Your task to perform on an android device: open the mobile data screen to see how much data has been used Image 0: 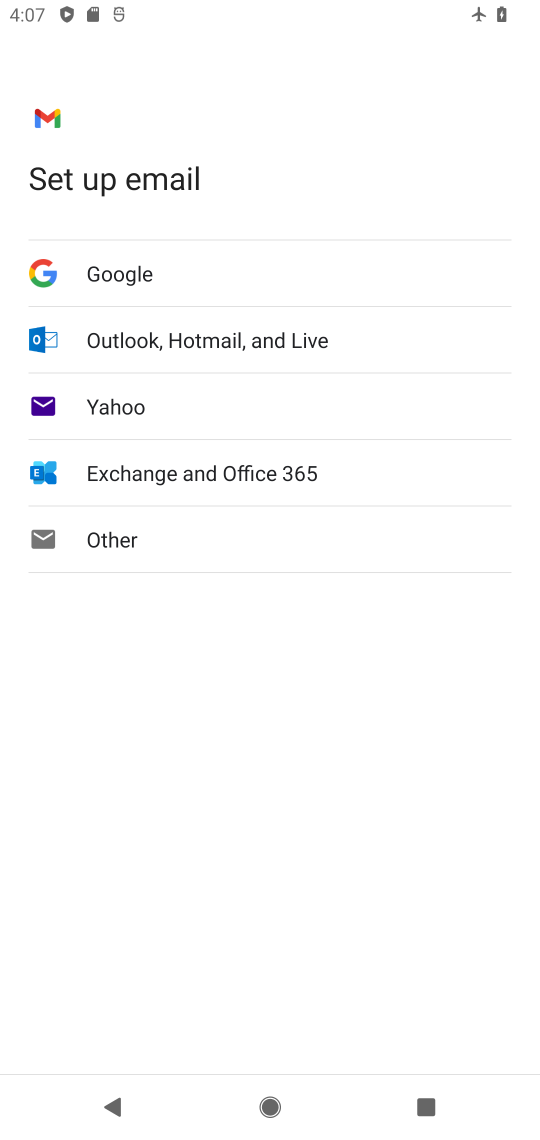
Step 0: press home button
Your task to perform on an android device: open the mobile data screen to see how much data has been used Image 1: 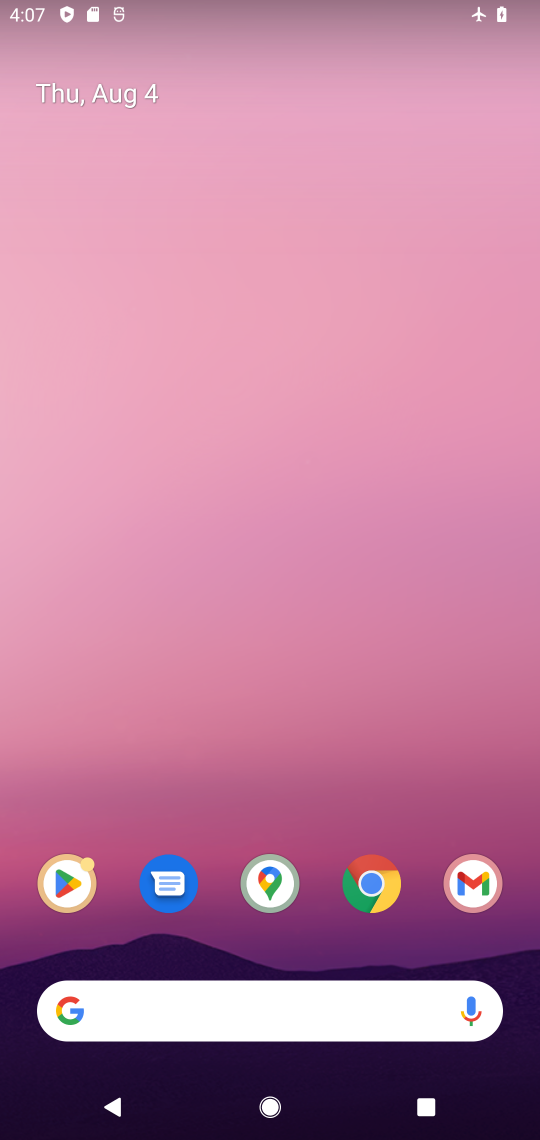
Step 1: drag from (490, 807) to (216, 54)
Your task to perform on an android device: open the mobile data screen to see how much data has been used Image 2: 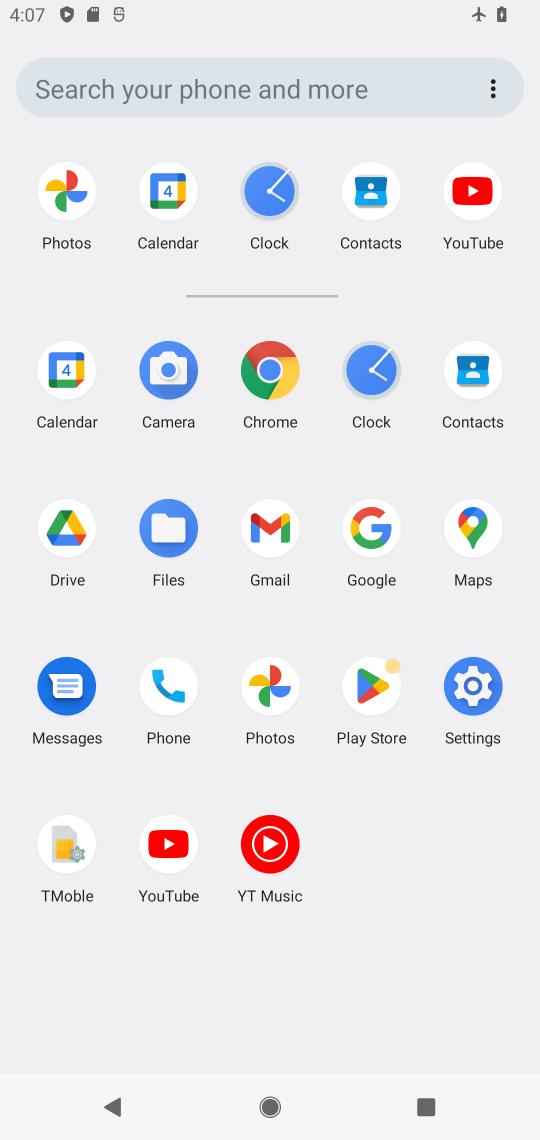
Step 2: click (477, 682)
Your task to perform on an android device: open the mobile data screen to see how much data has been used Image 3: 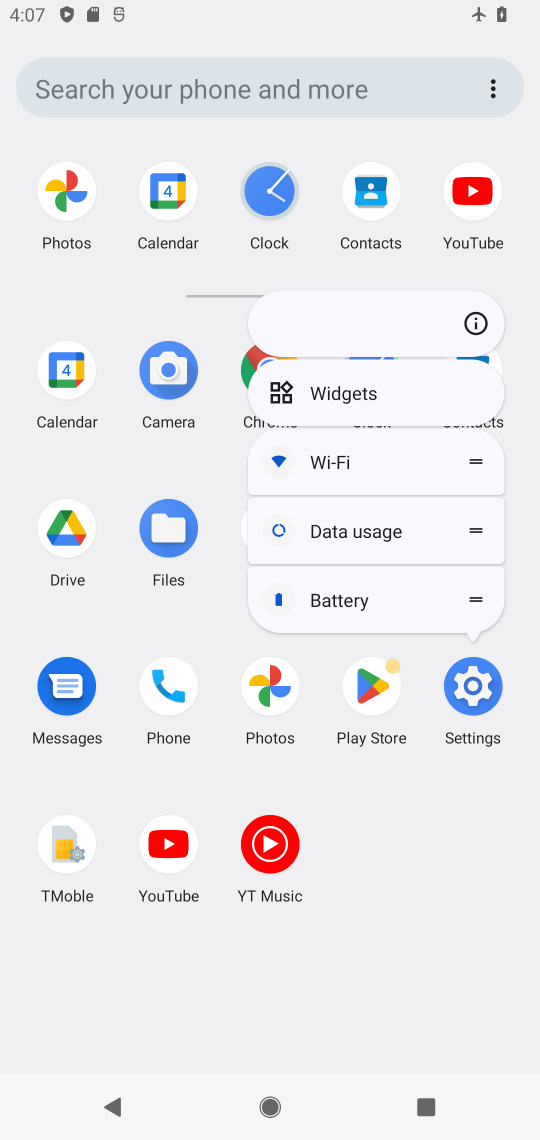
Step 3: click (477, 682)
Your task to perform on an android device: open the mobile data screen to see how much data has been used Image 4: 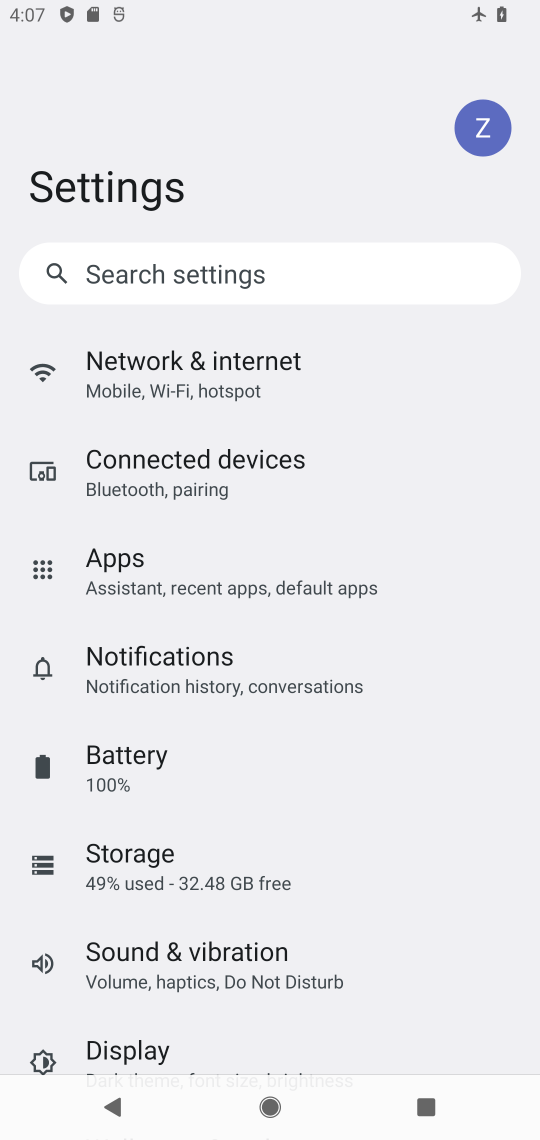
Step 4: task complete